Your task to perform on an android device: change the clock display to digital Image 0: 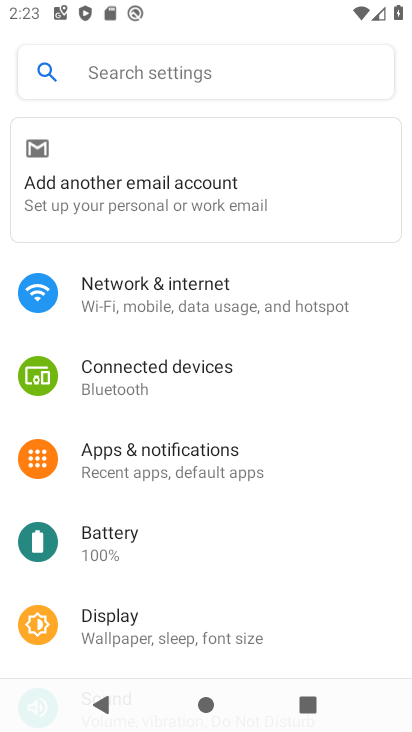
Step 0: press home button
Your task to perform on an android device: change the clock display to digital Image 1: 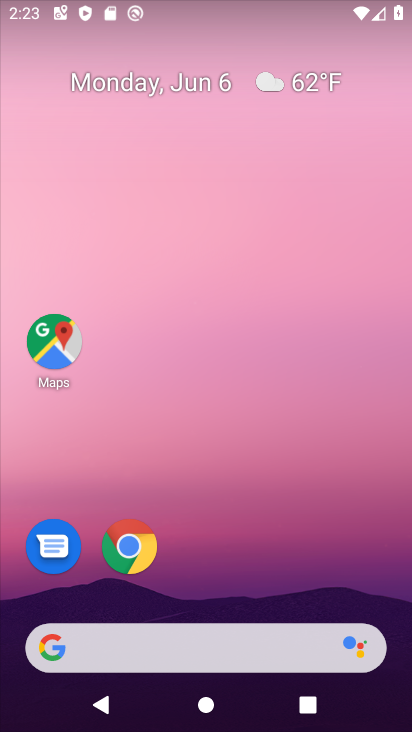
Step 1: drag from (324, 463) to (345, 142)
Your task to perform on an android device: change the clock display to digital Image 2: 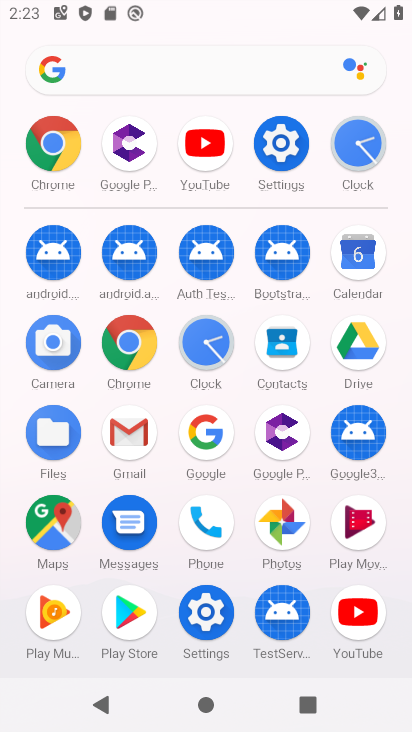
Step 2: click (206, 346)
Your task to perform on an android device: change the clock display to digital Image 3: 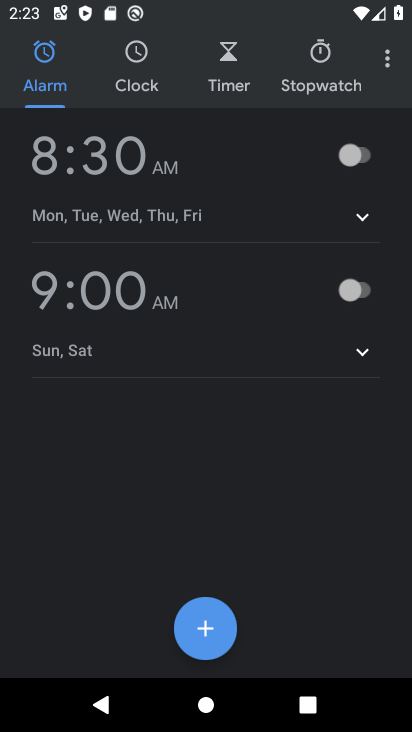
Step 3: click (387, 57)
Your task to perform on an android device: change the clock display to digital Image 4: 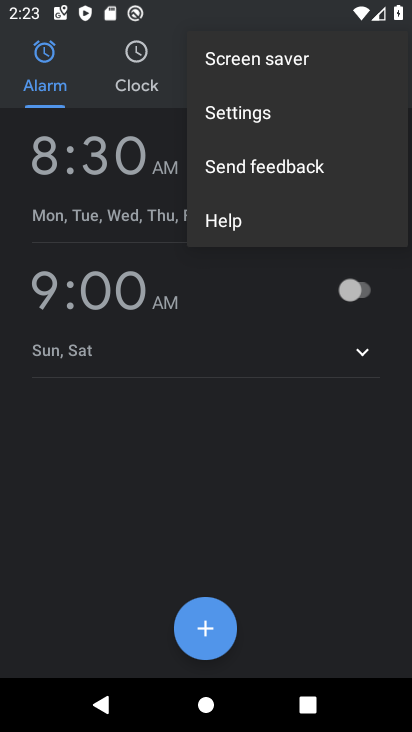
Step 4: click (280, 114)
Your task to perform on an android device: change the clock display to digital Image 5: 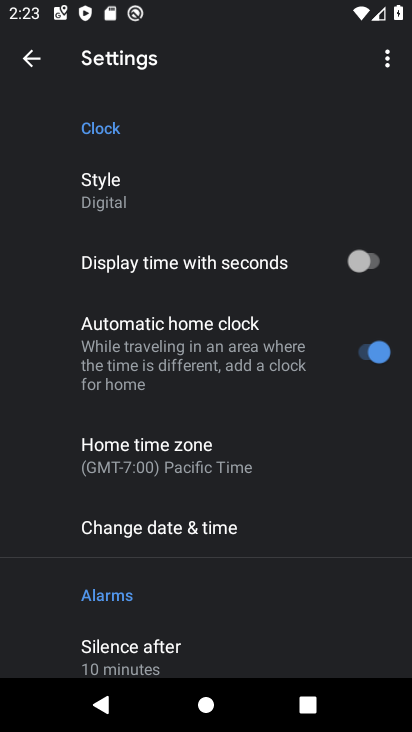
Step 5: task complete